Your task to perform on an android device: Open location settings Image 0: 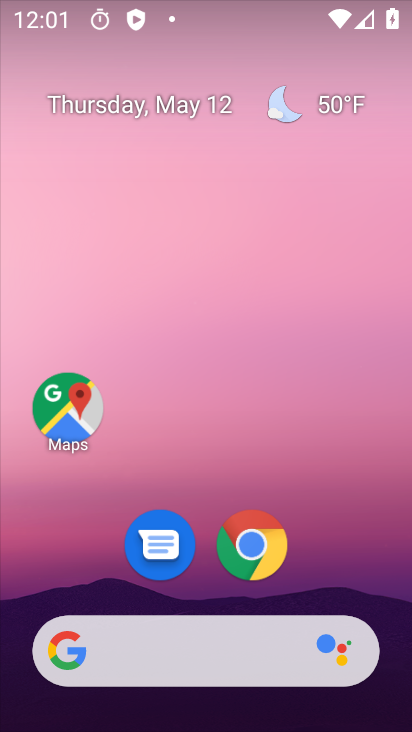
Step 0: drag from (157, 657) to (4, 102)
Your task to perform on an android device: Open location settings Image 1: 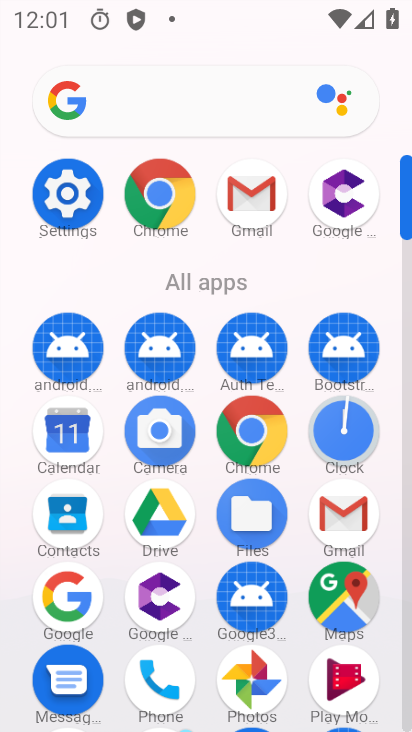
Step 1: click (61, 192)
Your task to perform on an android device: Open location settings Image 2: 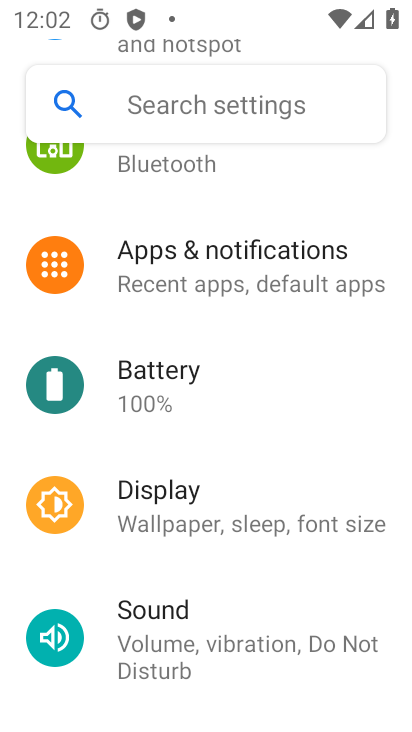
Step 2: drag from (182, 428) to (128, 10)
Your task to perform on an android device: Open location settings Image 3: 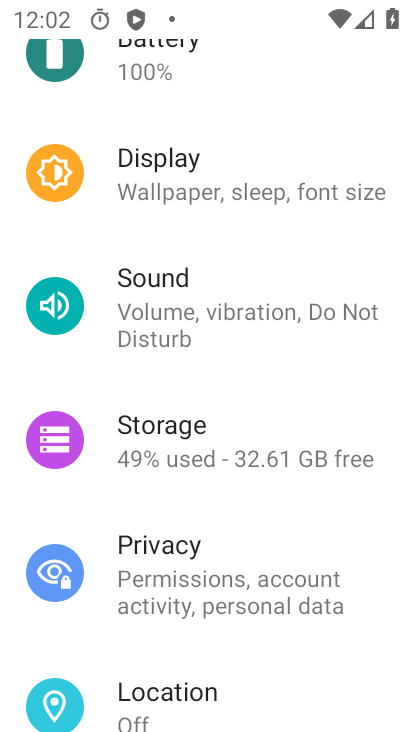
Step 3: click (155, 704)
Your task to perform on an android device: Open location settings Image 4: 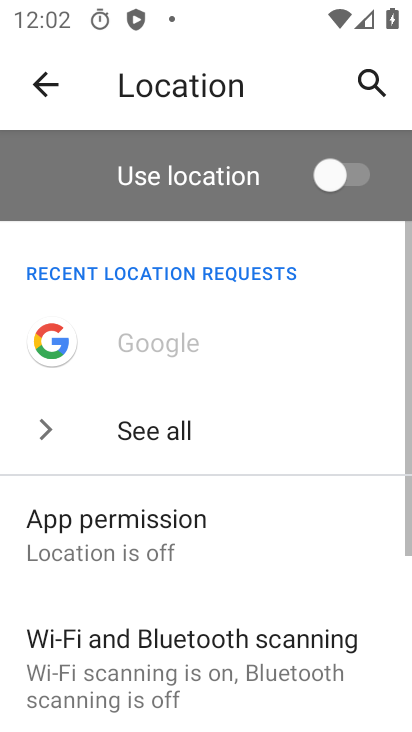
Step 4: task complete